Your task to perform on an android device: Go to Google maps Image 0: 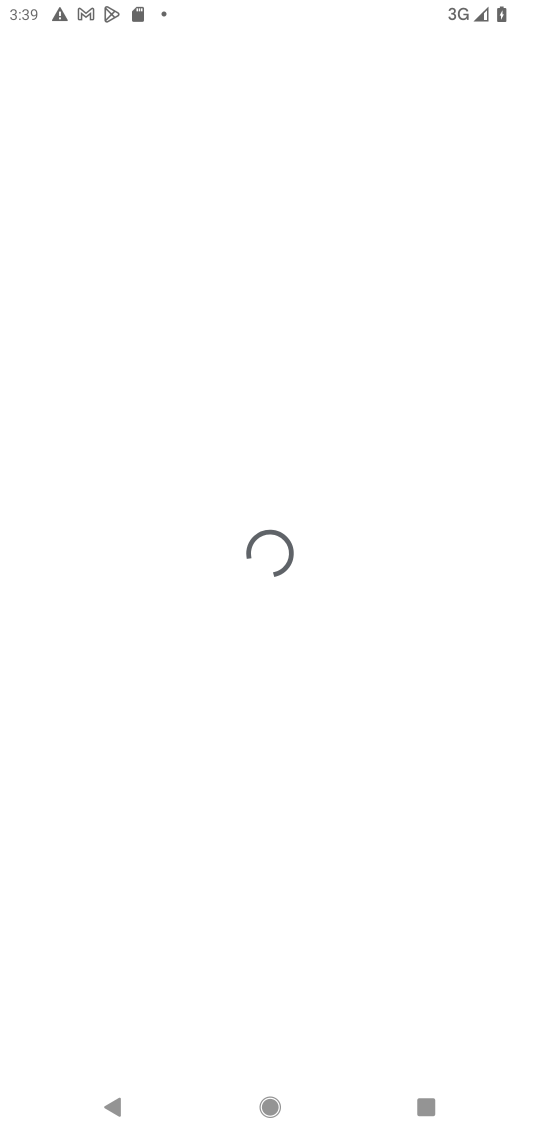
Step 0: press home button
Your task to perform on an android device: Go to Google maps Image 1: 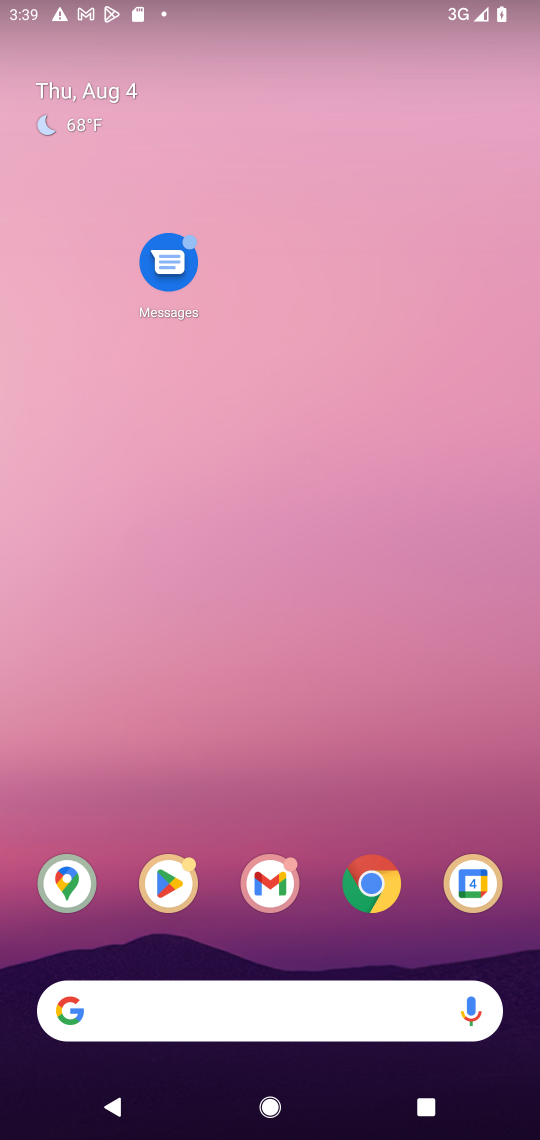
Step 1: drag from (308, 591) to (302, 61)
Your task to perform on an android device: Go to Google maps Image 2: 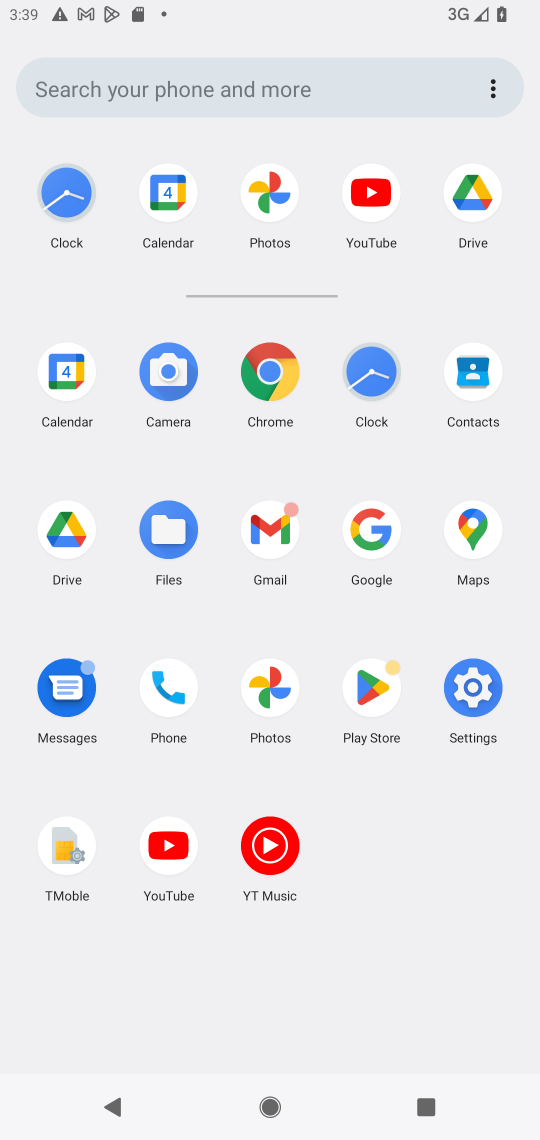
Step 2: click (475, 535)
Your task to perform on an android device: Go to Google maps Image 3: 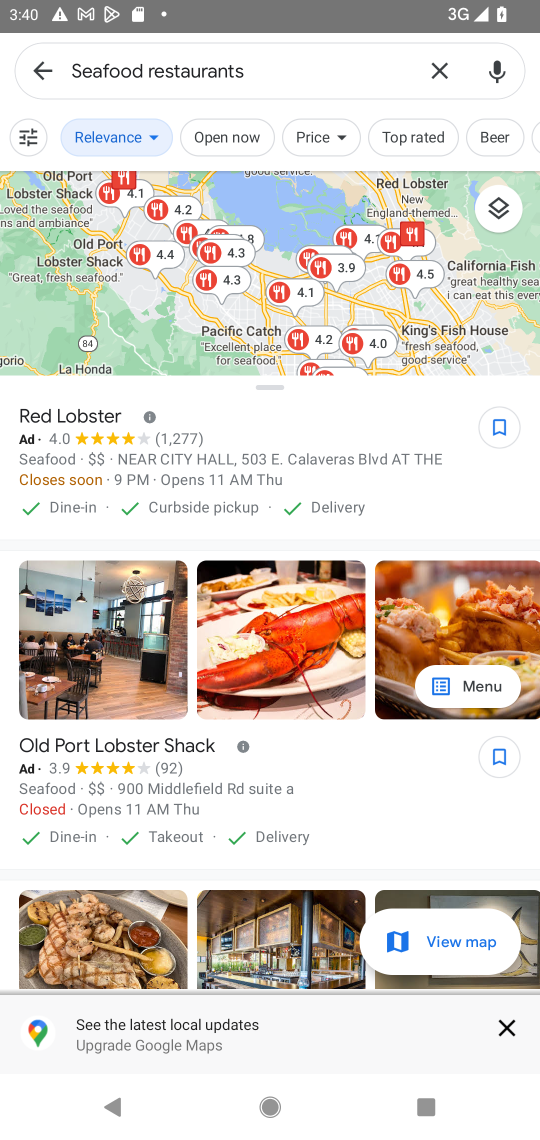
Step 3: task complete